Your task to perform on an android device: Go to accessibility settings Image 0: 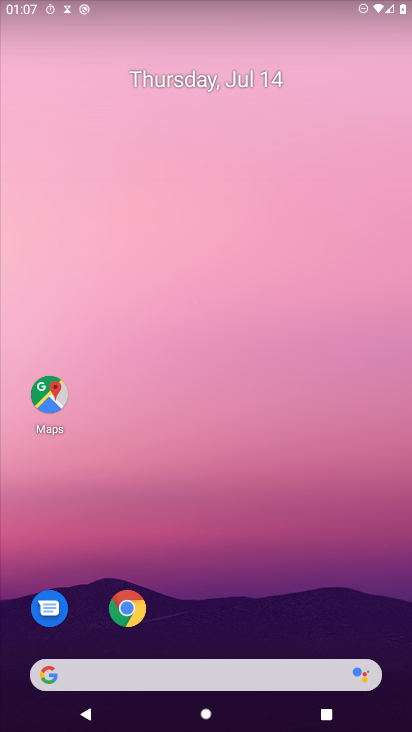
Step 0: press home button
Your task to perform on an android device: Go to accessibility settings Image 1: 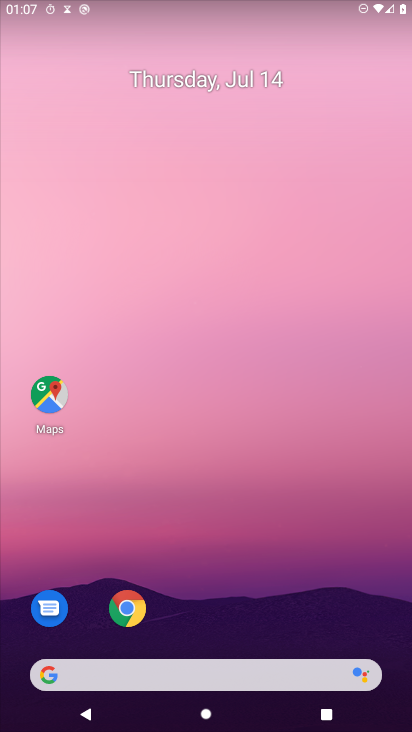
Step 1: drag from (256, 554) to (228, 19)
Your task to perform on an android device: Go to accessibility settings Image 2: 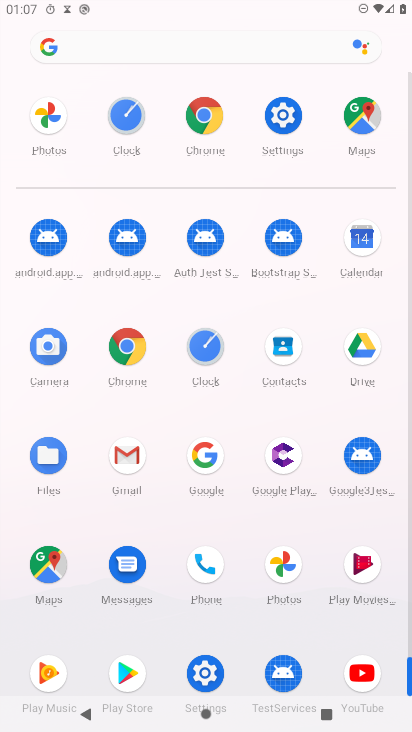
Step 2: click (289, 122)
Your task to perform on an android device: Go to accessibility settings Image 3: 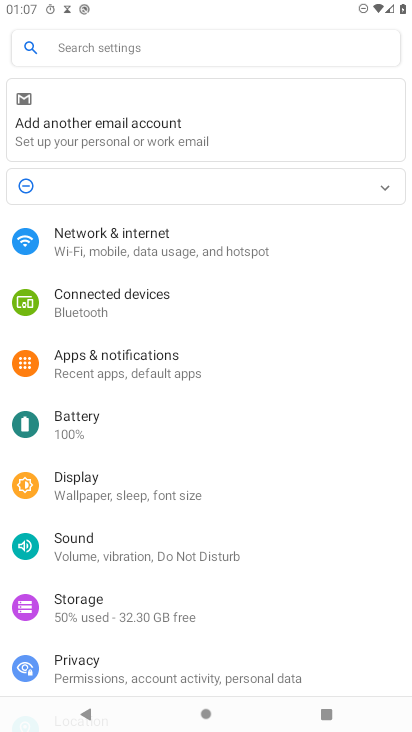
Step 3: drag from (105, 644) to (127, 223)
Your task to perform on an android device: Go to accessibility settings Image 4: 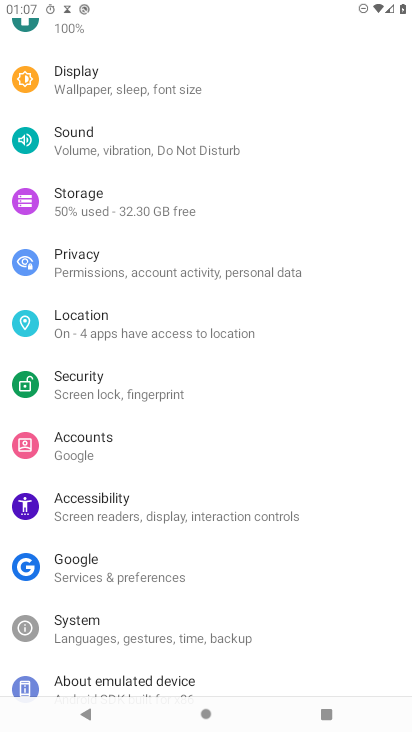
Step 4: click (120, 512)
Your task to perform on an android device: Go to accessibility settings Image 5: 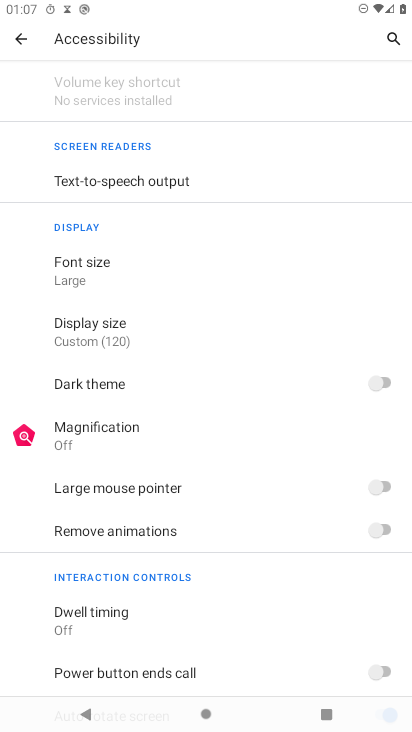
Step 5: task complete